Your task to perform on an android device: Go to wifi settings Image 0: 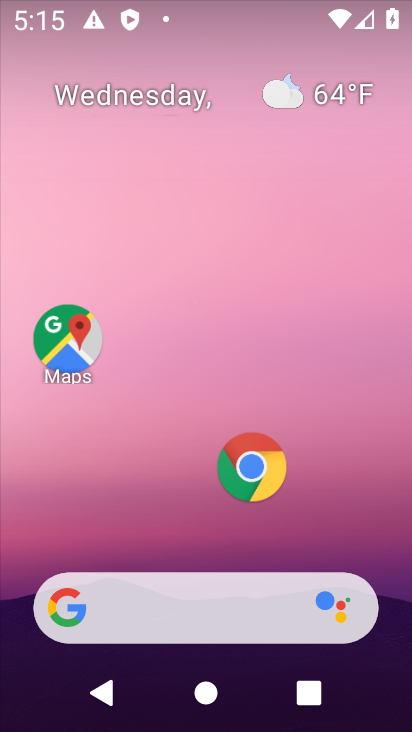
Step 0: drag from (169, 459) to (190, 259)
Your task to perform on an android device: Go to wifi settings Image 1: 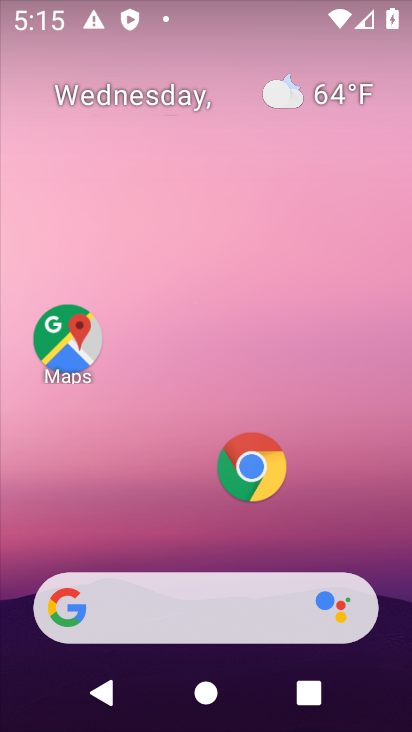
Step 1: drag from (167, 478) to (197, 151)
Your task to perform on an android device: Go to wifi settings Image 2: 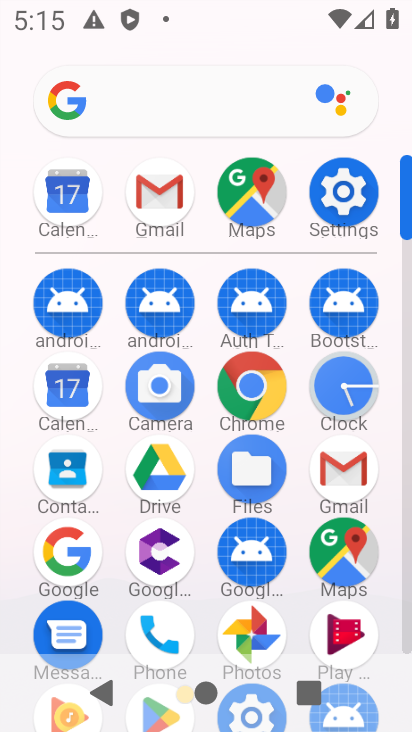
Step 2: click (334, 201)
Your task to perform on an android device: Go to wifi settings Image 3: 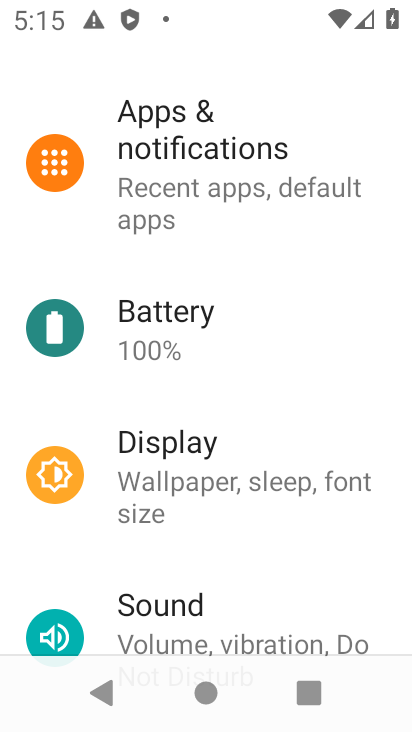
Step 3: task complete